Your task to perform on an android device: turn on sleep mode Image 0: 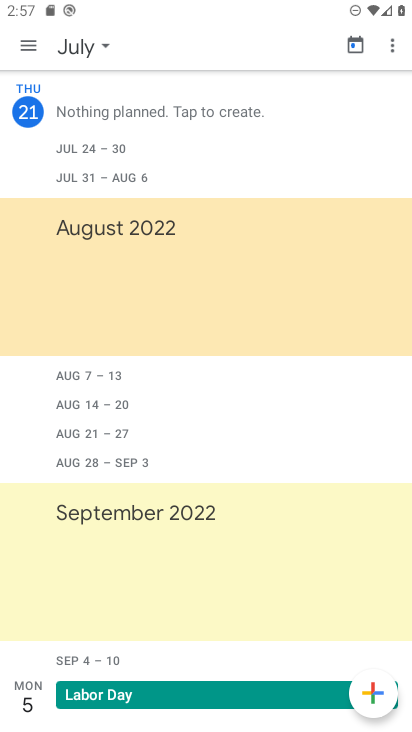
Step 0: press back button
Your task to perform on an android device: turn on sleep mode Image 1: 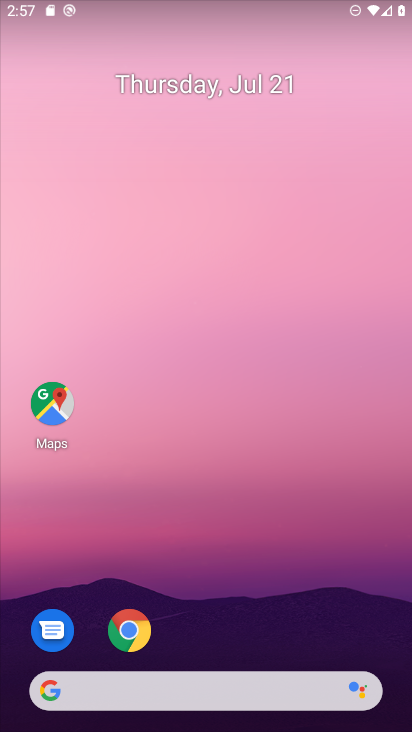
Step 1: drag from (253, 625) to (266, 8)
Your task to perform on an android device: turn on sleep mode Image 2: 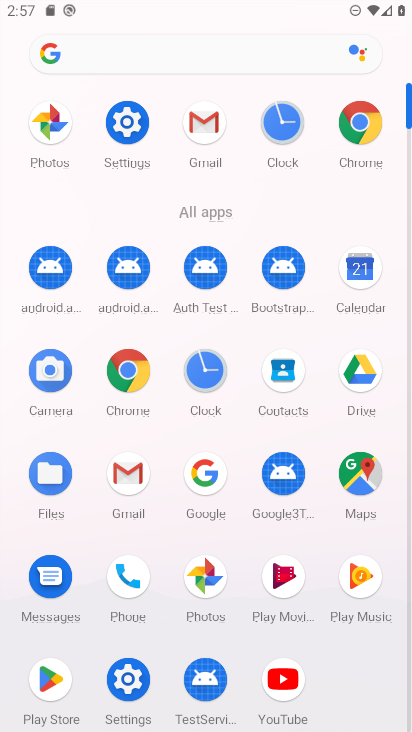
Step 2: click (128, 133)
Your task to perform on an android device: turn on sleep mode Image 3: 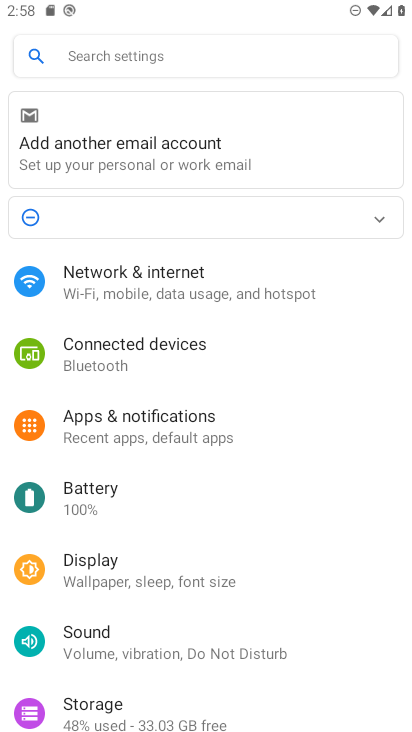
Step 3: click (105, 60)
Your task to perform on an android device: turn on sleep mode Image 4: 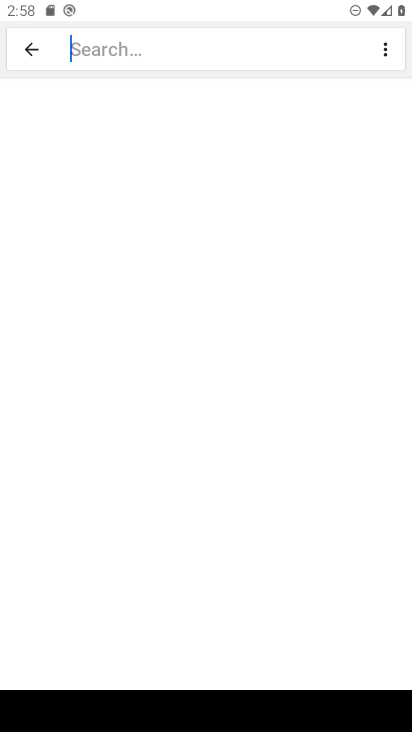
Step 4: type "sleep mode"
Your task to perform on an android device: turn on sleep mode Image 5: 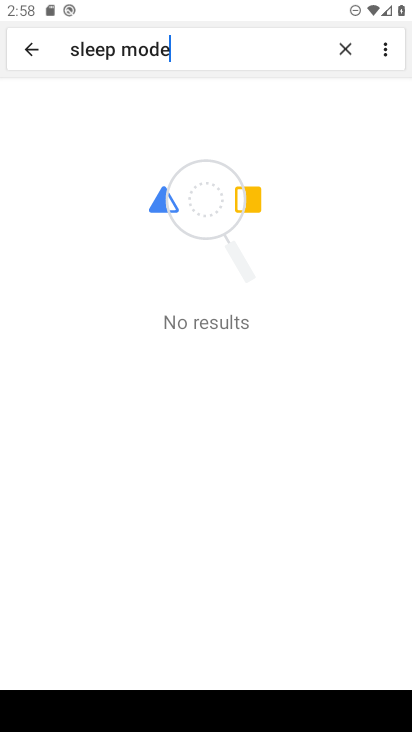
Step 5: task complete